Your task to perform on an android device: Open Google Chrome and click the shortcut for Amazon.com Image 0: 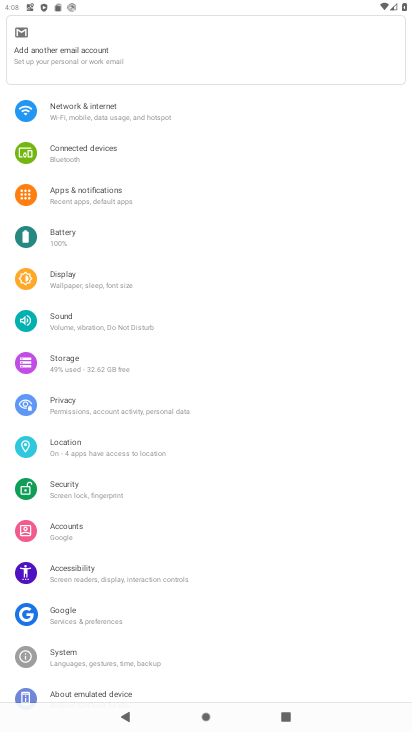
Step 0: press home button
Your task to perform on an android device: Open Google Chrome and click the shortcut for Amazon.com Image 1: 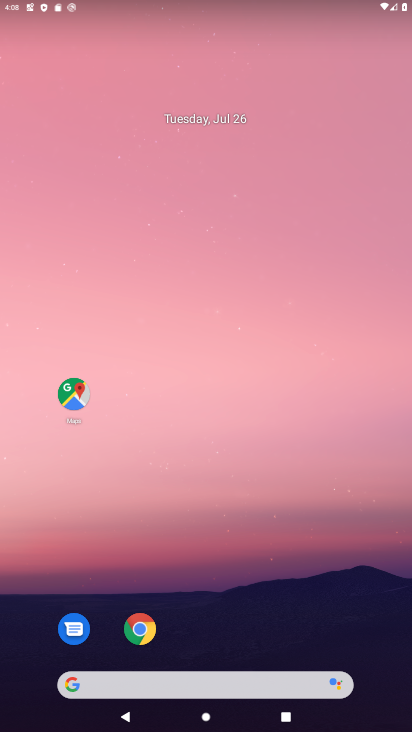
Step 1: click (145, 634)
Your task to perform on an android device: Open Google Chrome and click the shortcut for Amazon.com Image 2: 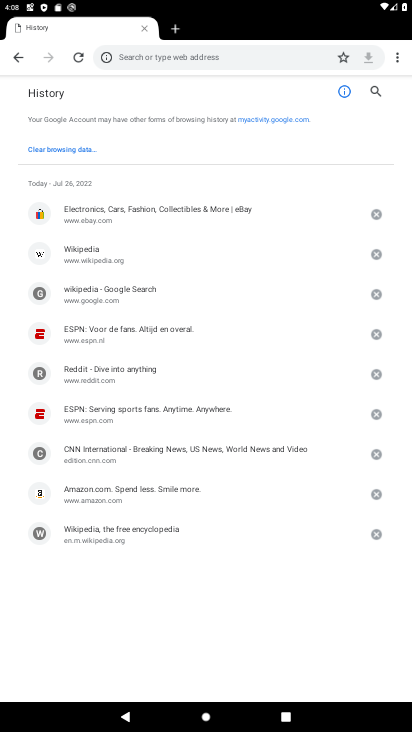
Step 2: click (167, 30)
Your task to perform on an android device: Open Google Chrome and click the shortcut for Amazon.com Image 3: 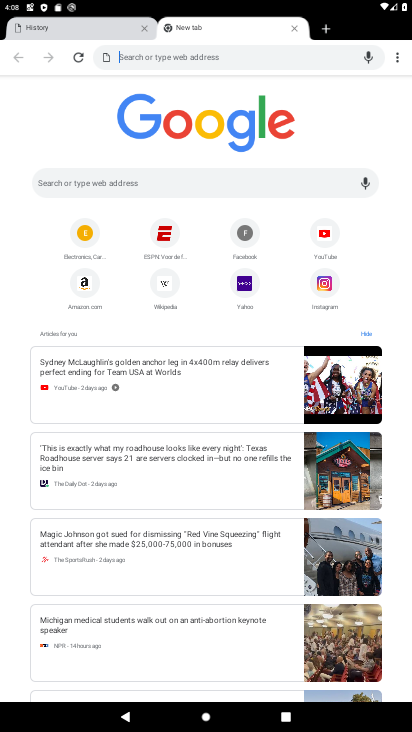
Step 3: click (144, 32)
Your task to perform on an android device: Open Google Chrome and click the shortcut for Amazon.com Image 4: 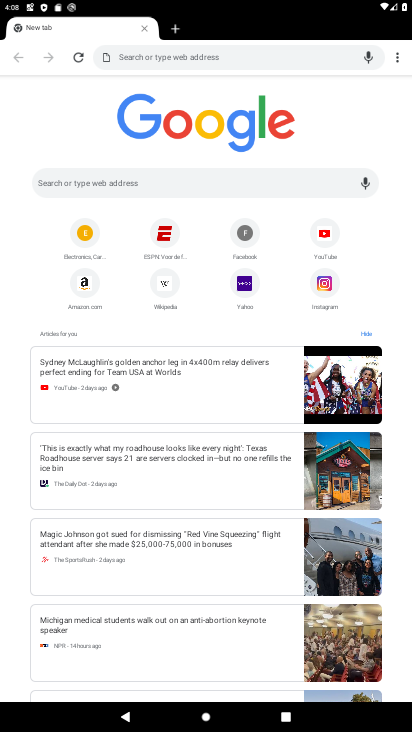
Step 4: click (79, 281)
Your task to perform on an android device: Open Google Chrome and click the shortcut for Amazon.com Image 5: 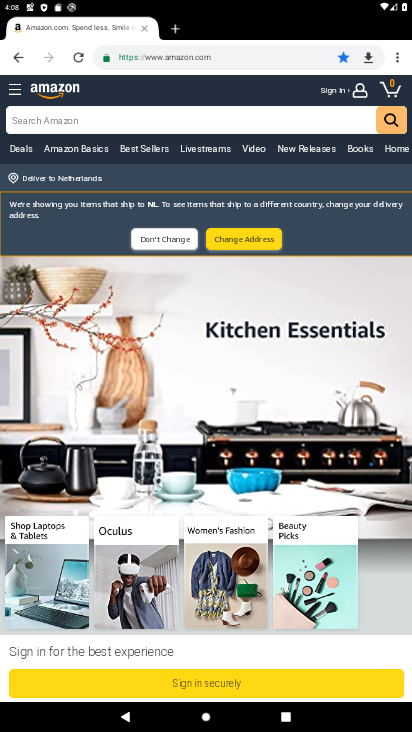
Step 5: task complete